Your task to perform on an android device: toggle data saver in the chrome app Image 0: 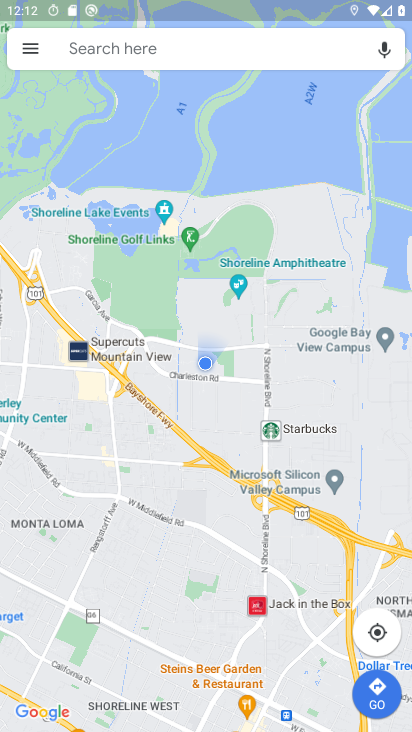
Step 0: press home button
Your task to perform on an android device: toggle data saver in the chrome app Image 1: 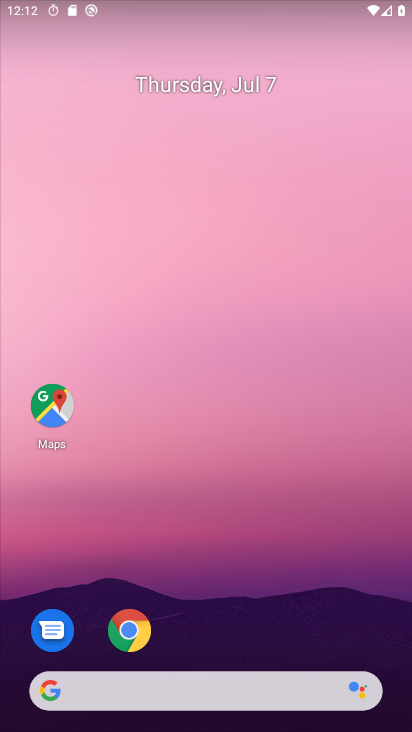
Step 1: drag from (306, 617) to (299, 36)
Your task to perform on an android device: toggle data saver in the chrome app Image 2: 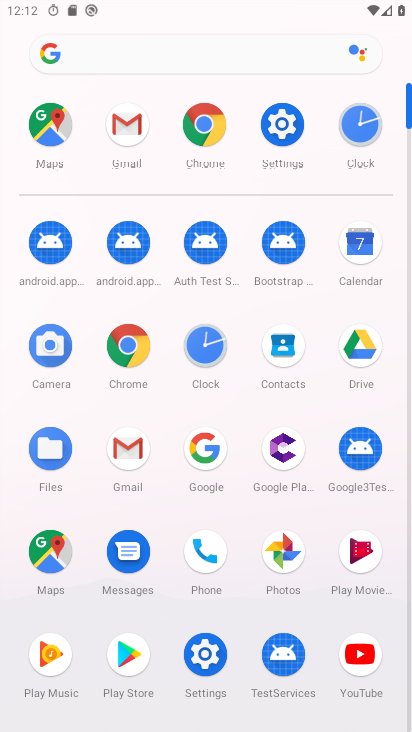
Step 2: click (123, 342)
Your task to perform on an android device: toggle data saver in the chrome app Image 3: 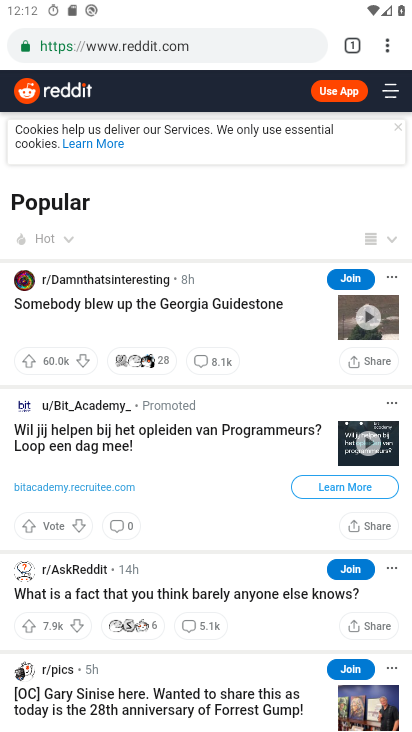
Step 3: click (388, 43)
Your task to perform on an android device: toggle data saver in the chrome app Image 4: 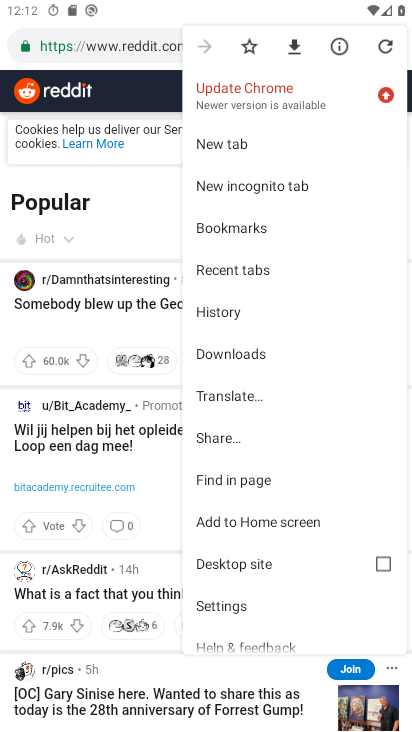
Step 4: click (226, 607)
Your task to perform on an android device: toggle data saver in the chrome app Image 5: 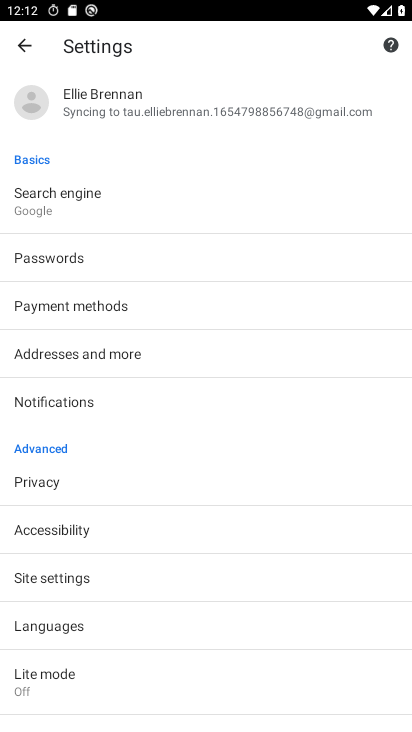
Step 5: drag from (67, 578) to (83, 470)
Your task to perform on an android device: toggle data saver in the chrome app Image 6: 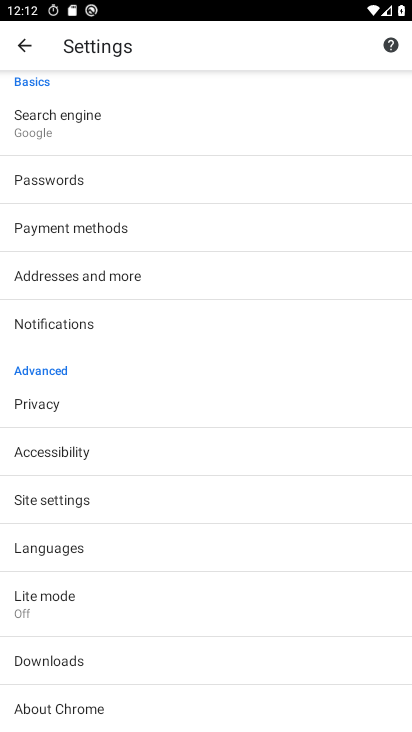
Step 6: click (49, 602)
Your task to perform on an android device: toggle data saver in the chrome app Image 7: 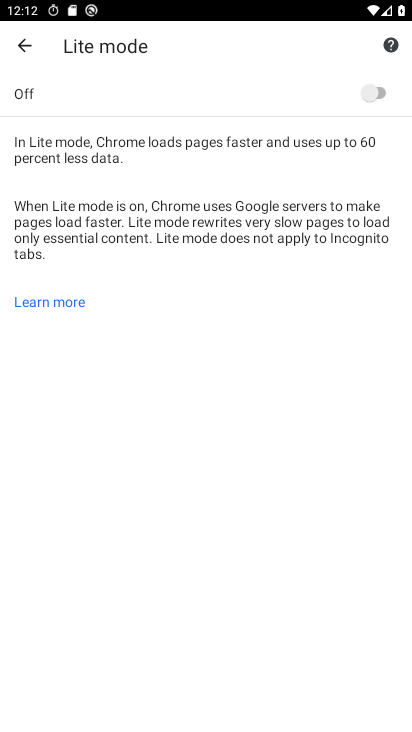
Step 7: click (392, 96)
Your task to perform on an android device: toggle data saver in the chrome app Image 8: 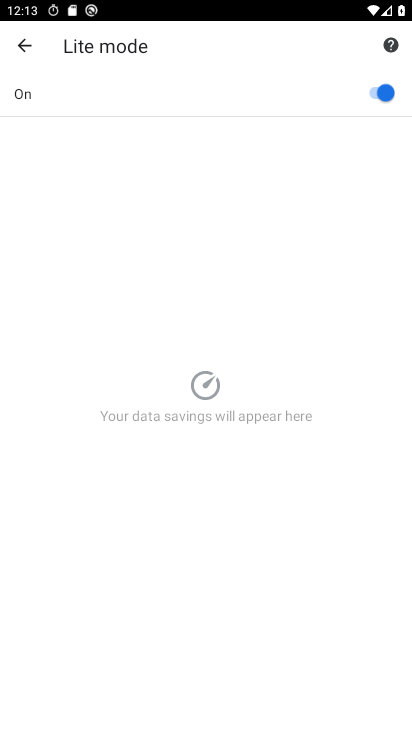
Step 8: task complete